Your task to perform on an android device: open app "DuckDuckGo Privacy Browser" Image 0: 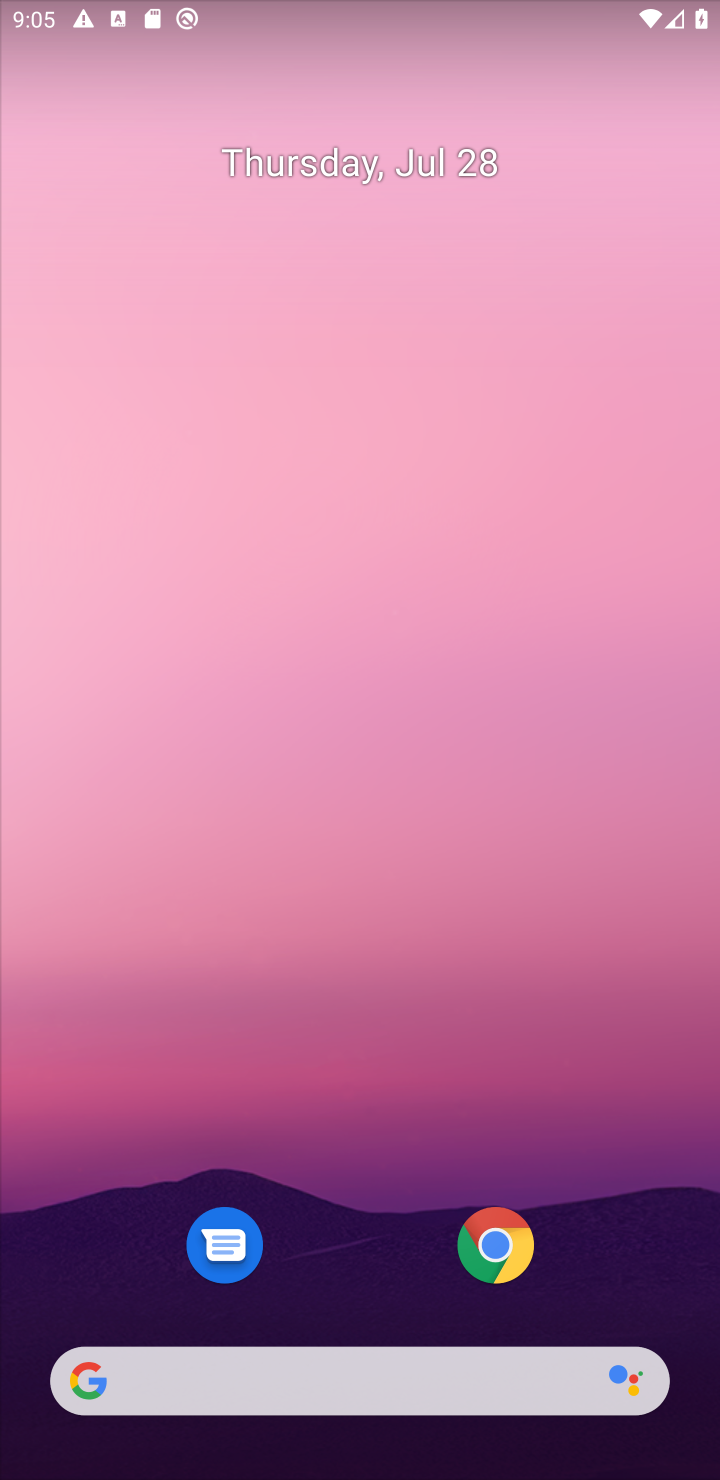
Step 0: drag from (353, 1304) to (428, 63)
Your task to perform on an android device: open app "DuckDuckGo Privacy Browser" Image 1: 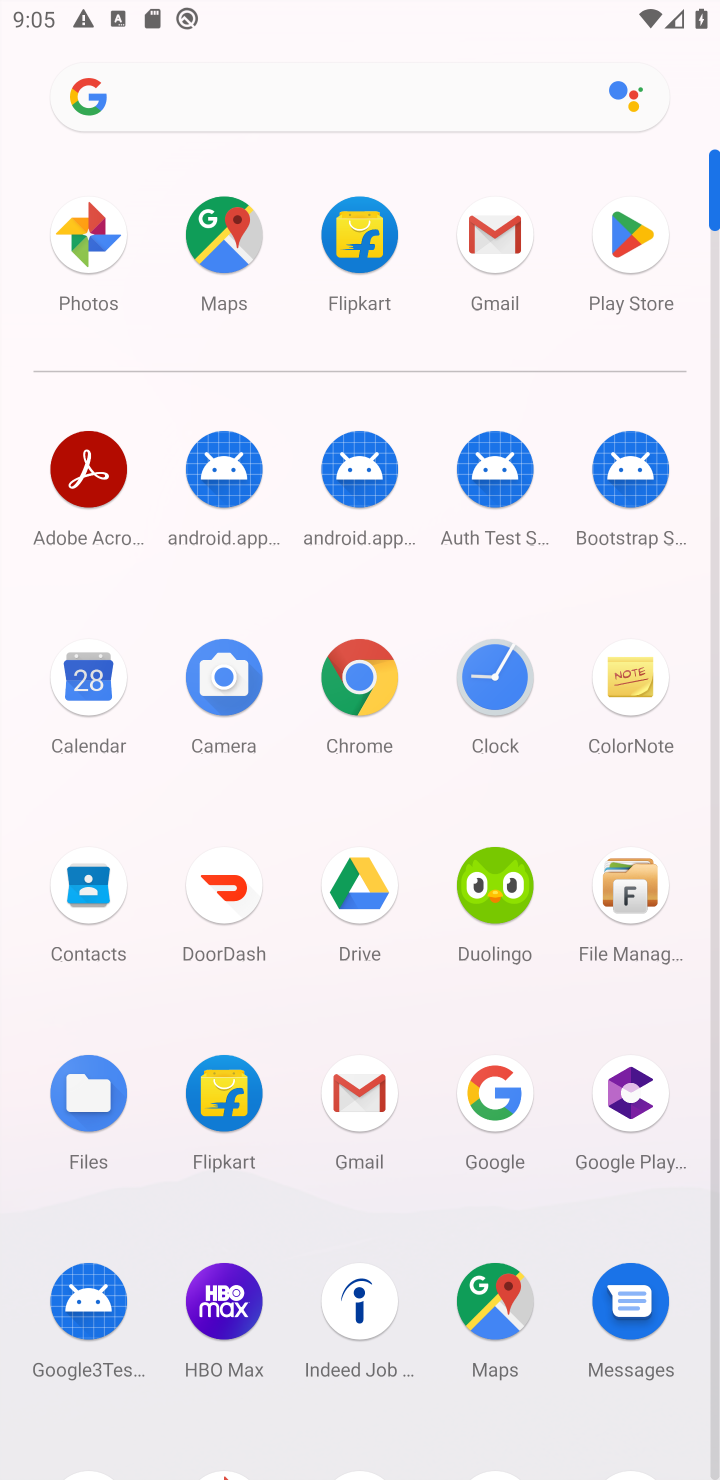
Step 1: click (625, 244)
Your task to perform on an android device: open app "DuckDuckGo Privacy Browser" Image 2: 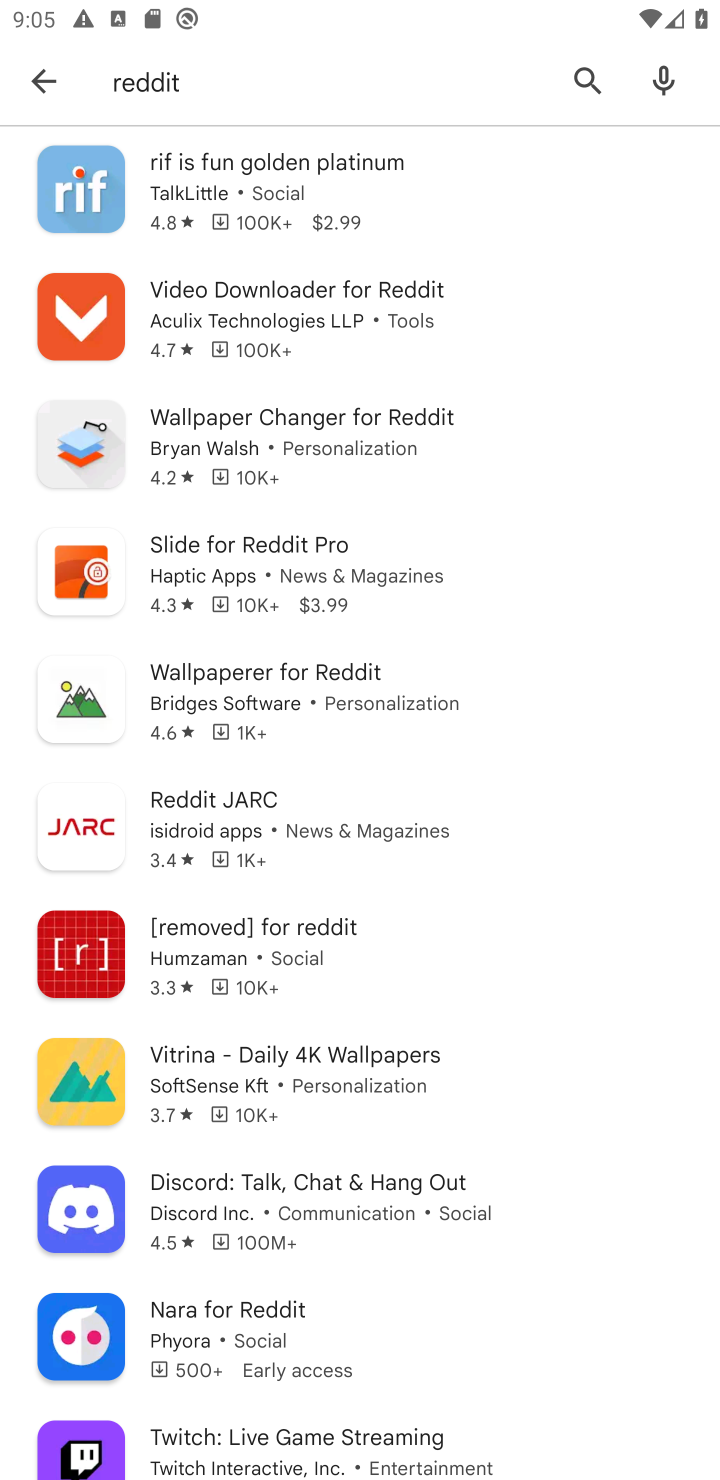
Step 2: click (603, 74)
Your task to perform on an android device: open app "DuckDuckGo Privacy Browser" Image 3: 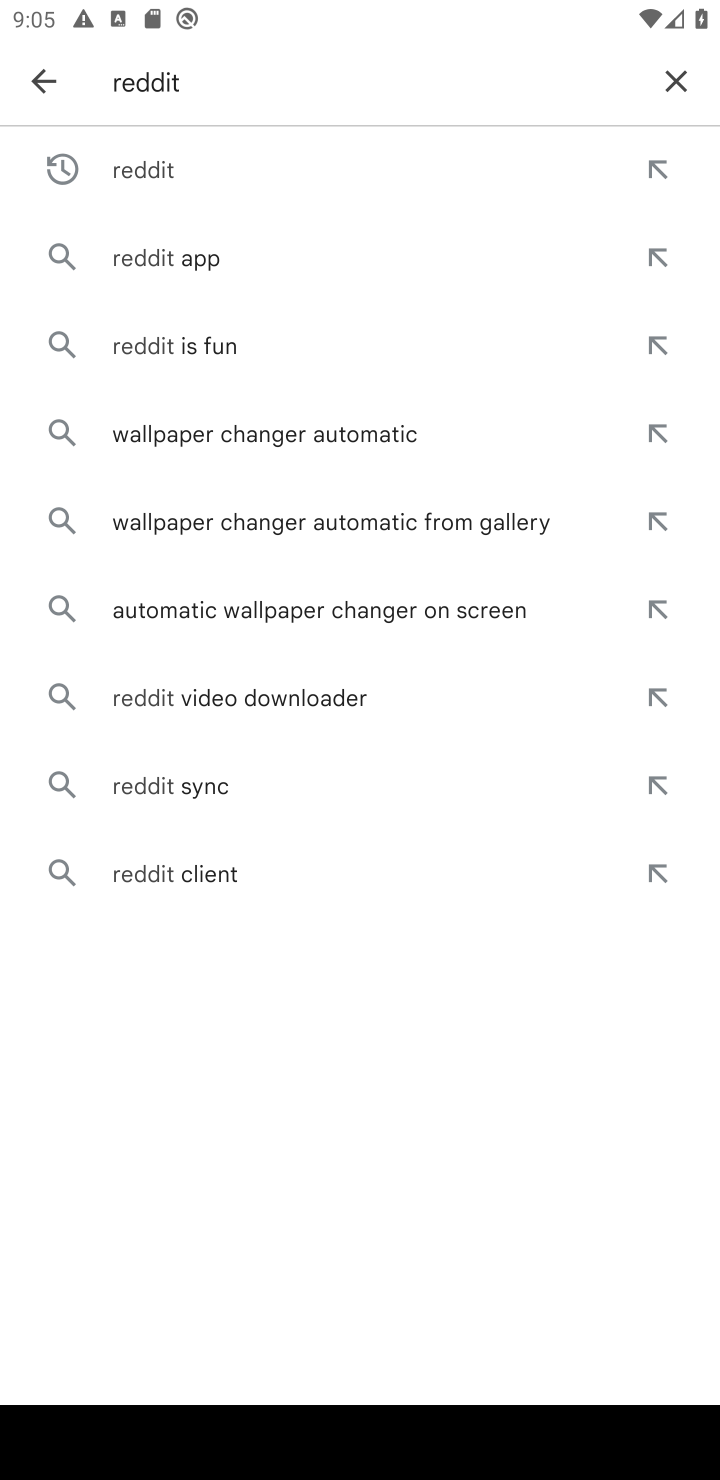
Step 3: click (673, 87)
Your task to perform on an android device: open app "DuckDuckGo Privacy Browser" Image 4: 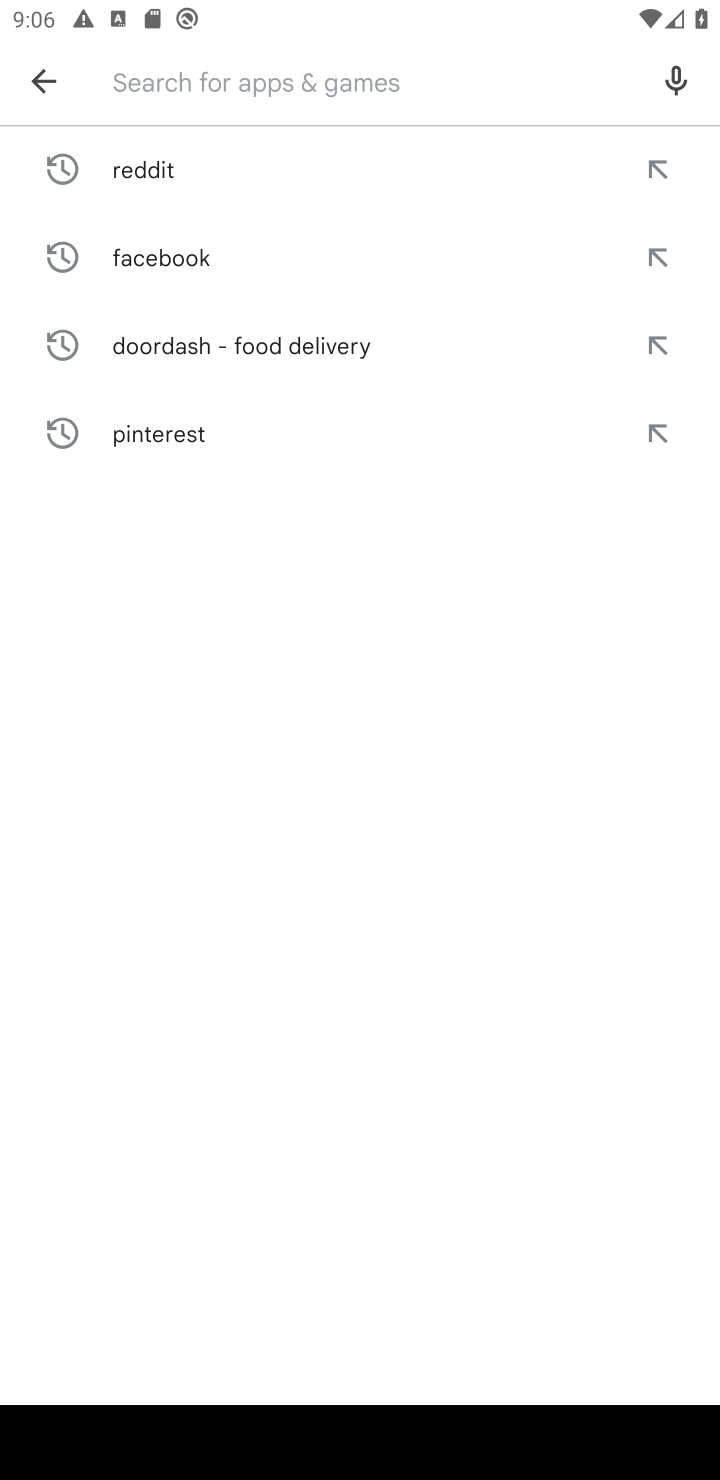
Step 4: type "DuckDuckgo privacy browser"
Your task to perform on an android device: open app "DuckDuckGo Privacy Browser" Image 5: 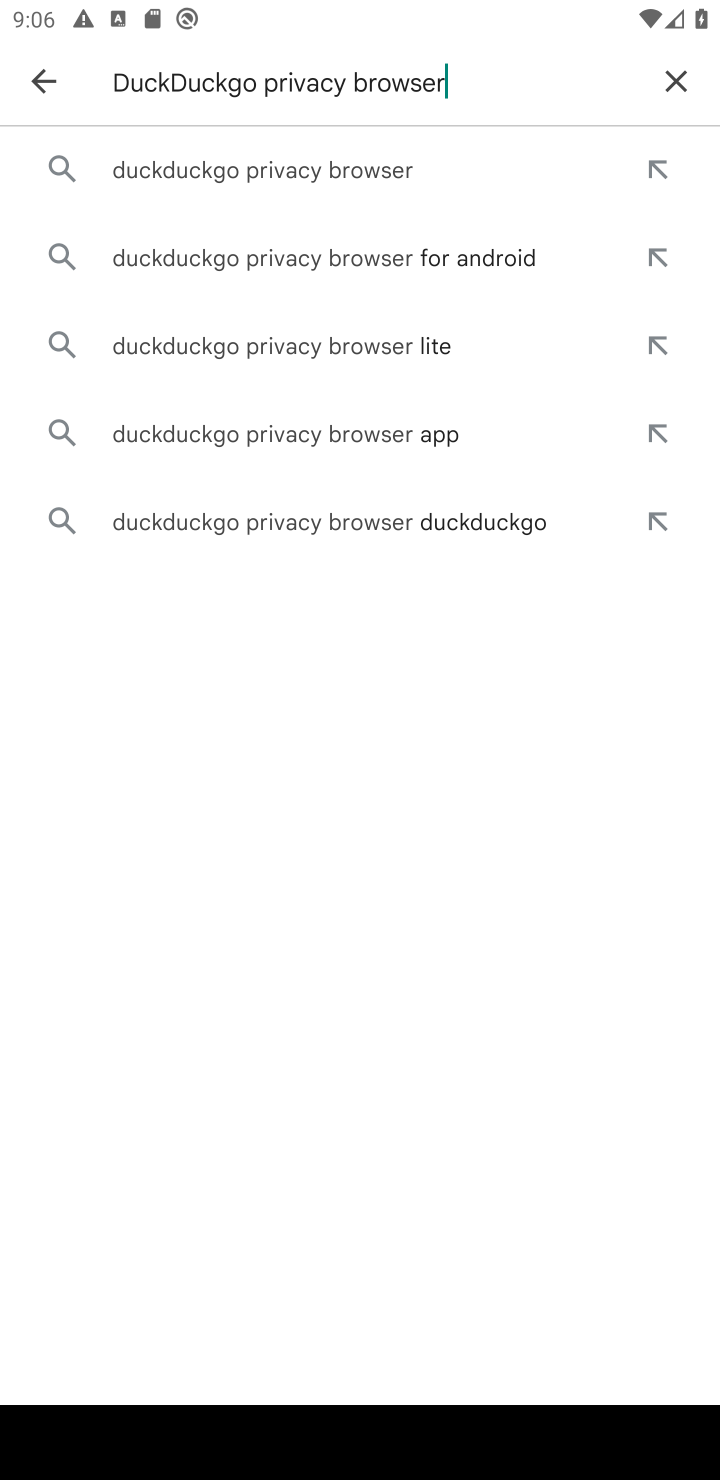
Step 5: click (366, 167)
Your task to perform on an android device: open app "DuckDuckGo Privacy Browser" Image 6: 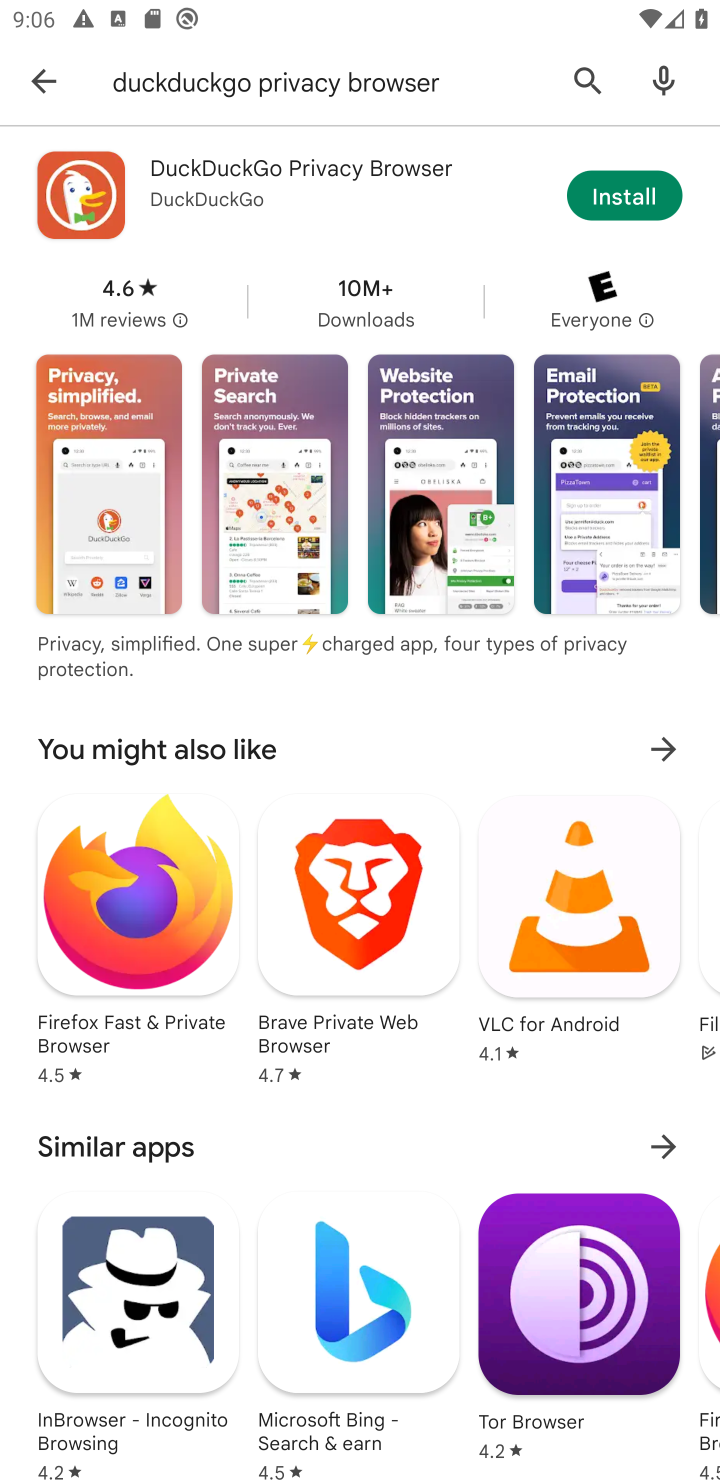
Step 6: click (382, 167)
Your task to perform on an android device: open app "DuckDuckGo Privacy Browser" Image 7: 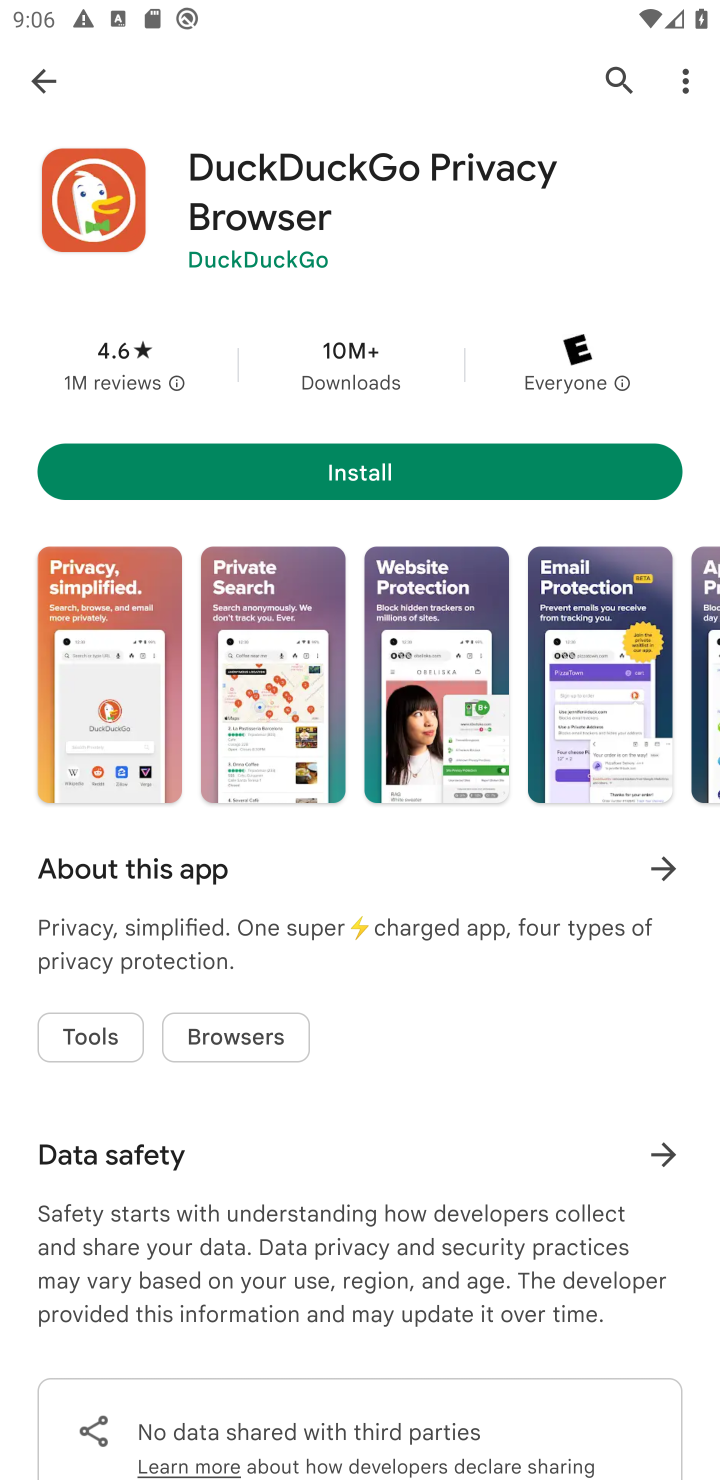
Step 7: task complete